Your task to perform on an android device: Search for a new foundation (skincare) product Image 0: 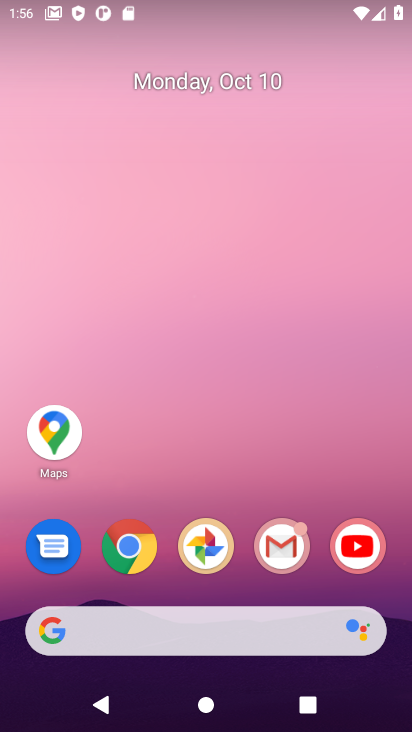
Step 0: click (148, 546)
Your task to perform on an android device: Search for a new foundation (skincare) product Image 1: 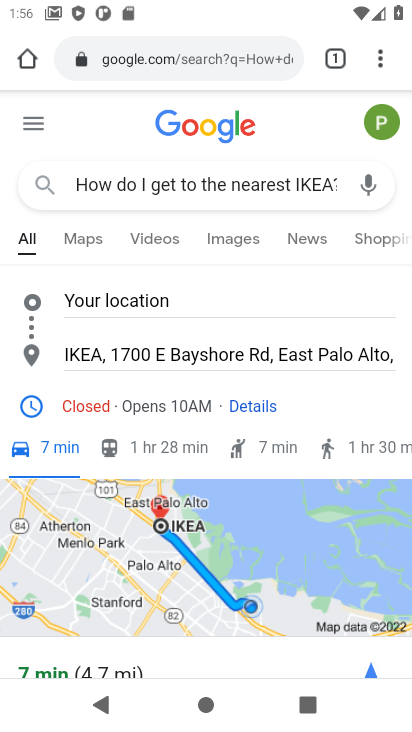
Step 1: click (290, 204)
Your task to perform on an android device: Search for a new foundation (skincare) product Image 2: 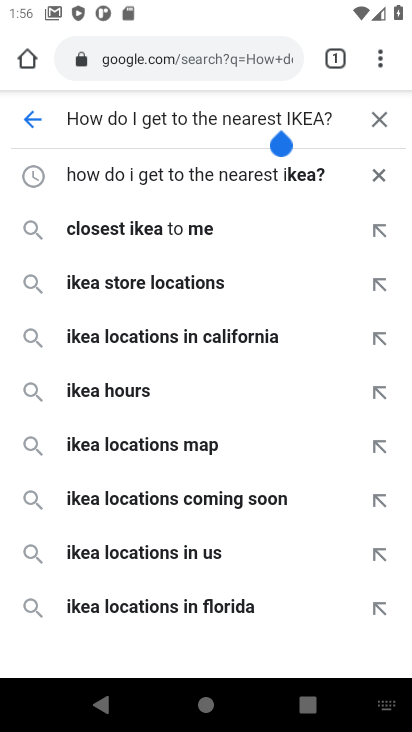
Step 2: click (371, 125)
Your task to perform on an android device: Search for a new foundation (skincare) product Image 3: 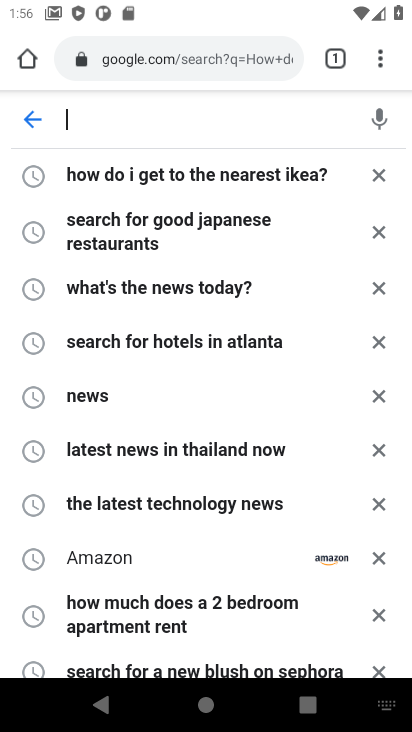
Step 3: type " new foundation (skincare) product"
Your task to perform on an android device: Search for a new foundation (skincare) product Image 4: 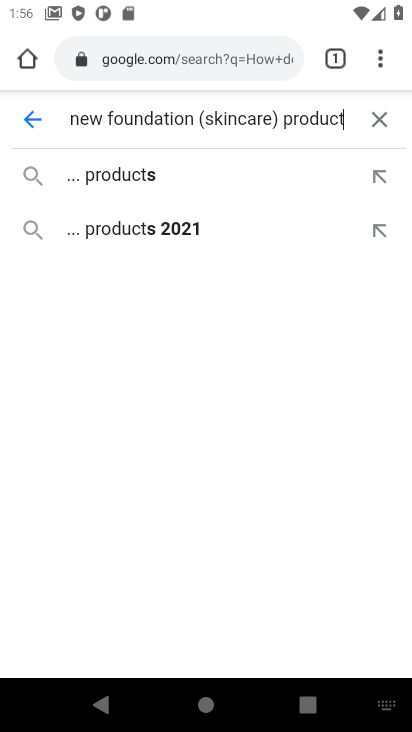
Step 4: click (224, 180)
Your task to perform on an android device: Search for a new foundation (skincare) product Image 5: 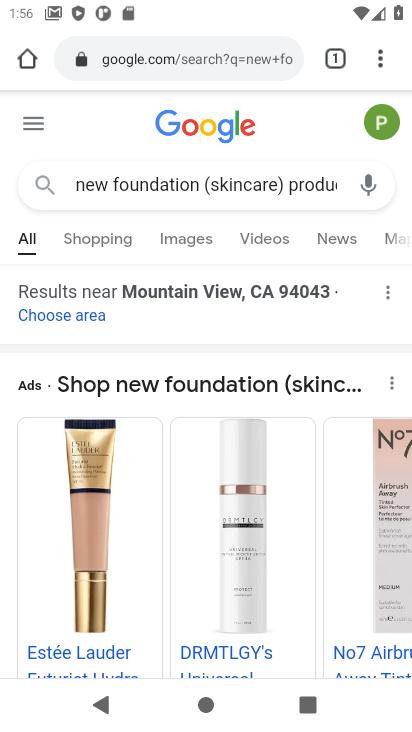
Step 5: click (122, 244)
Your task to perform on an android device: Search for a new foundation (skincare) product Image 6: 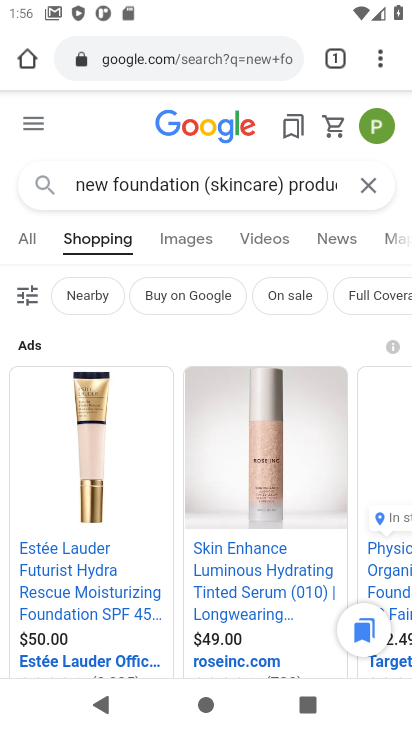
Step 6: task complete